Your task to perform on an android device: open sync settings in chrome Image 0: 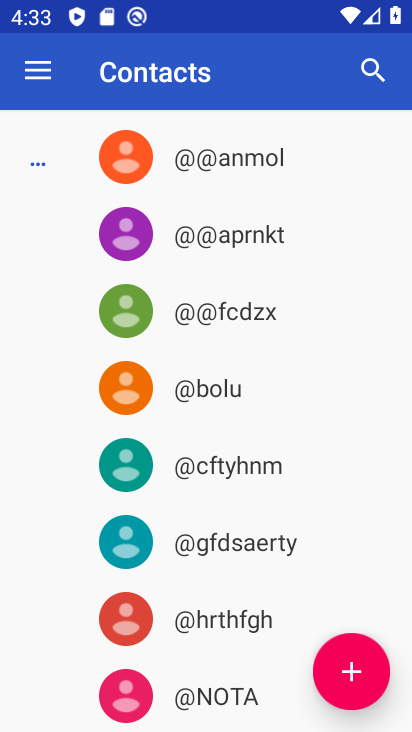
Step 0: press home button
Your task to perform on an android device: open sync settings in chrome Image 1: 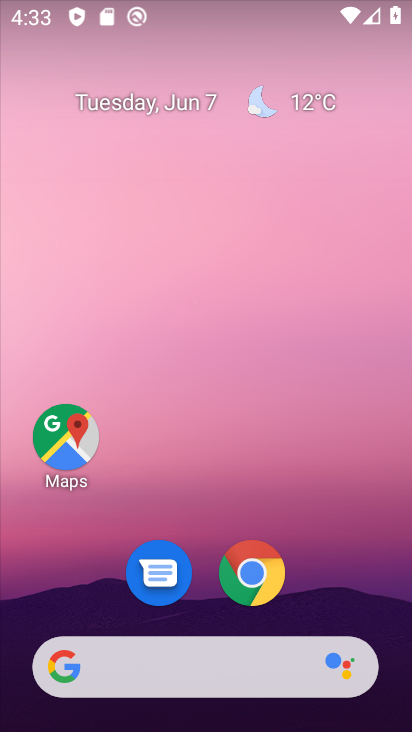
Step 1: click (273, 570)
Your task to perform on an android device: open sync settings in chrome Image 2: 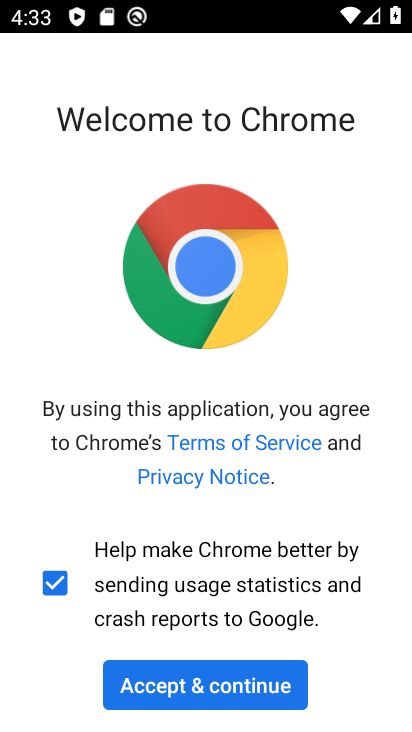
Step 2: click (185, 682)
Your task to perform on an android device: open sync settings in chrome Image 3: 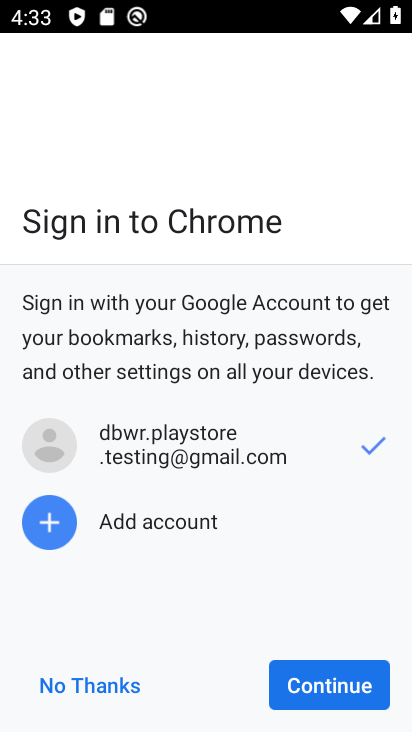
Step 3: click (338, 698)
Your task to perform on an android device: open sync settings in chrome Image 4: 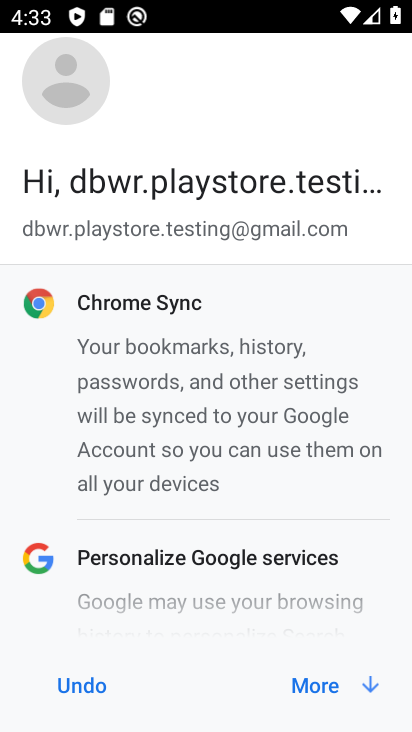
Step 4: click (334, 692)
Your task to perform on an android device: open sync settings in chrome Image 5: 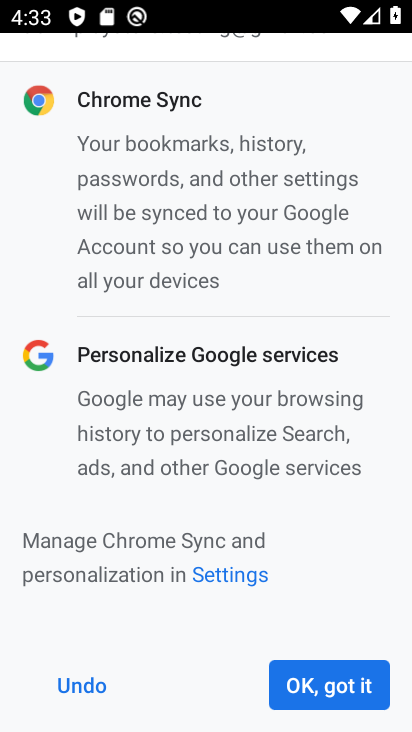
Step 5: click (334, 692)
Your task to perform on an android device: open sync settings in chrome Image 6: 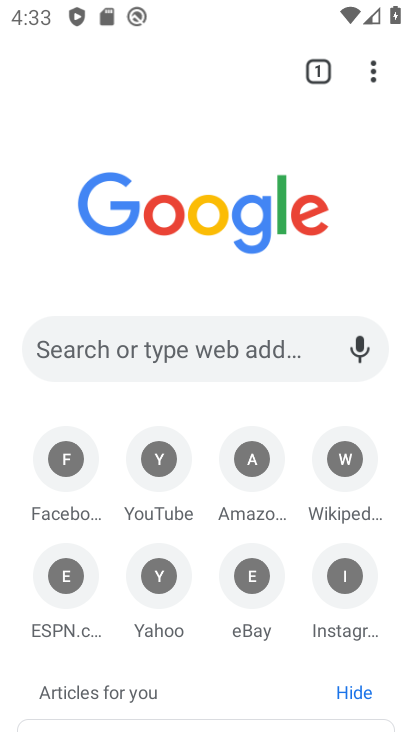
Step 6: click (367, 71)
Your task to perform on an android device: open sync settings in chrome Image 7: 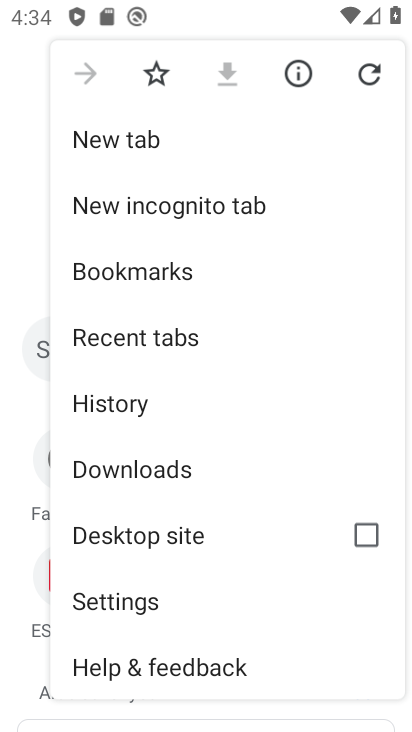
Step 7: click (126, 602)
Your task to perform on an android device: open sync settings in chrome Image 8: 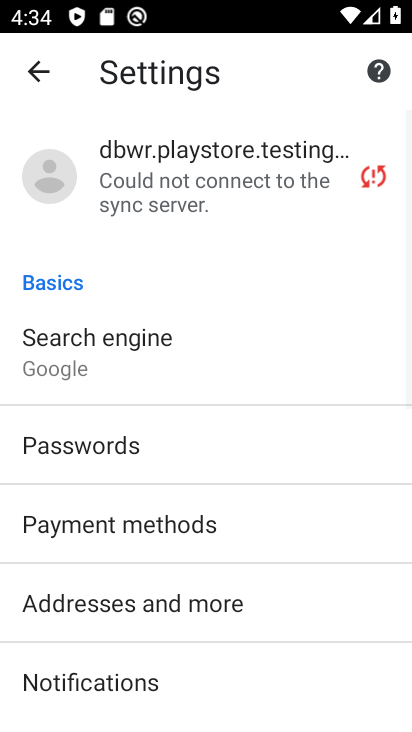
Step 8: click (189, 191)
Your task to perform on an android device: open sync settings in chrome Image 9: 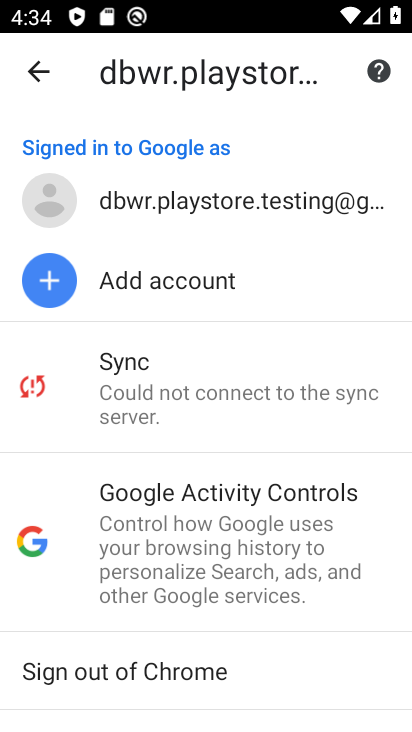
Step 9: click (149, 383)
Your task to perform on an android device: open sync settings in chrome Image 10: 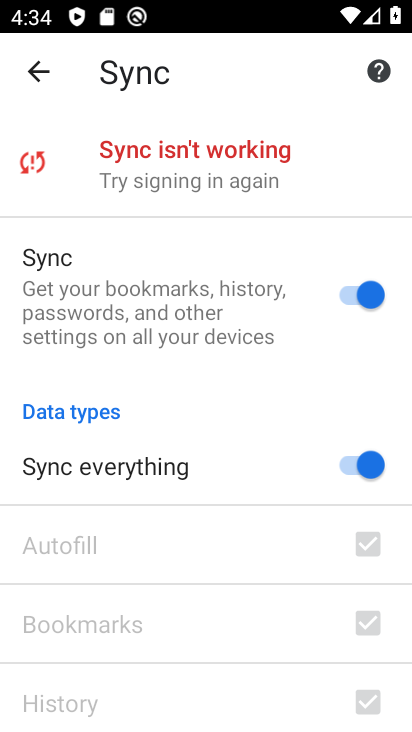
Step 10: task complete